Your task to perform on an android device: What is the recent news? Image 0: 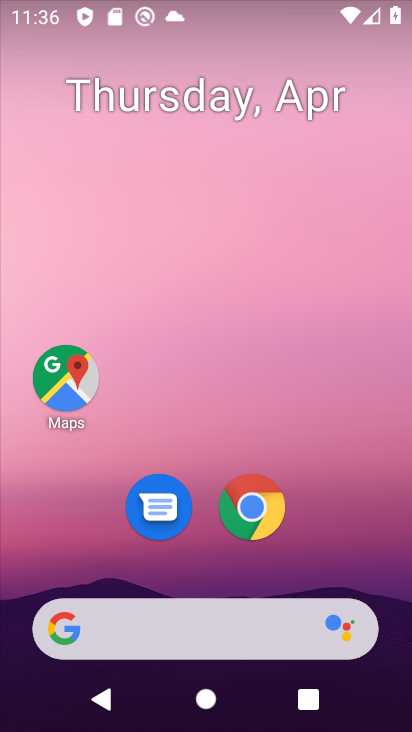
Step 0: drag from (4, 271) to (400, 294)
Your task to perform on an android device: What is the recent news? Image 1: 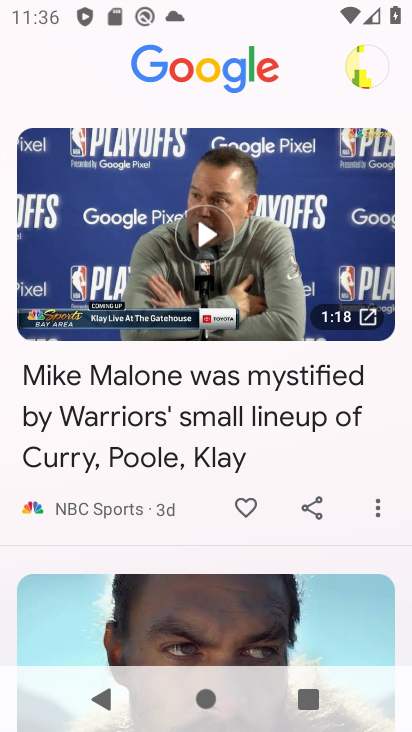
Step 1: task complete